Your task to perform on an android device: Go to Yahoo.com Image 0: 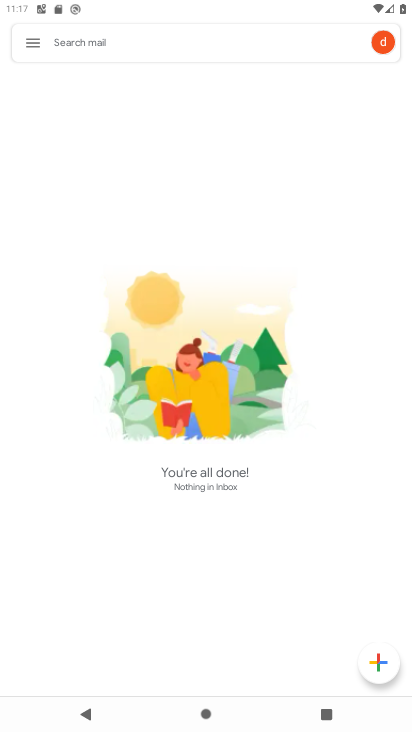
Step 0: press home button
Your task to perform on an android device: Go to Yahoo.com Image 1: 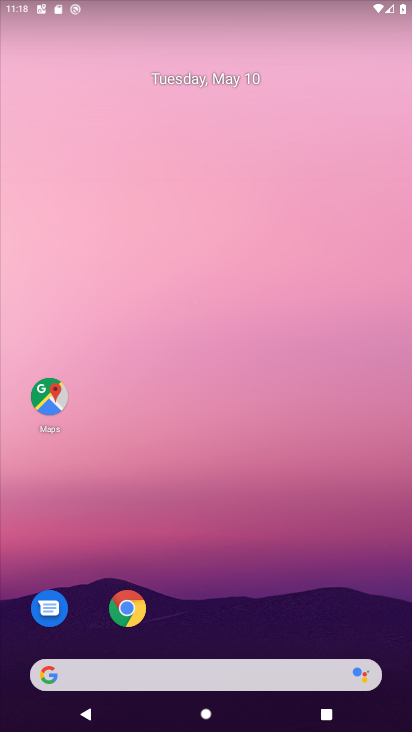
Step 1: click (131, 607)
Your task to perform on an android device: Go to Yahoo.com Image 2: 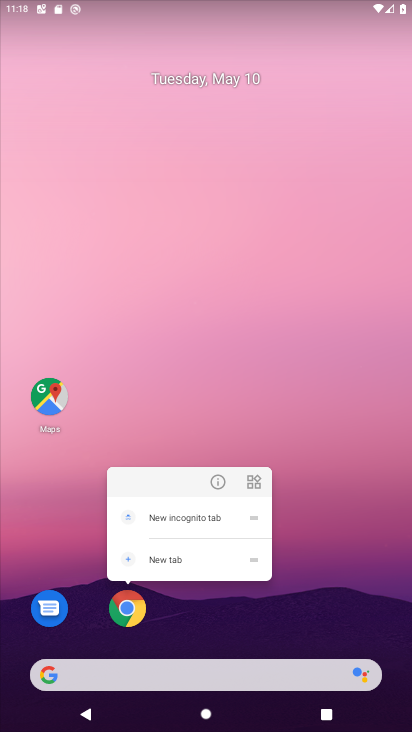
Step 2: click (137, 619)
Your task to perform on an android device: Go to Yahoo.com Image 3: 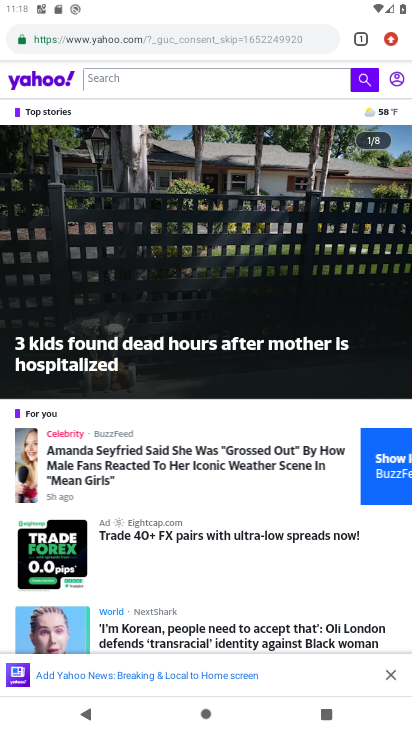
Step 3: task complete